Your task to perform on an android device: Go to location settings Image 0: 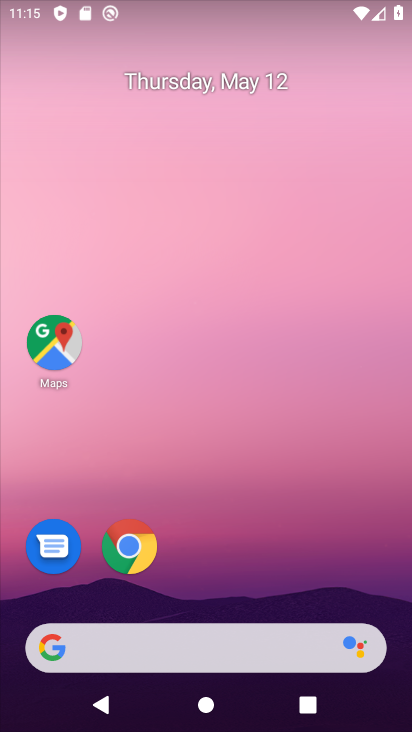
Step 0: drag from (244, 680) to (241, 143)
Your task to perform on an android device: Go to location settings Image 1: 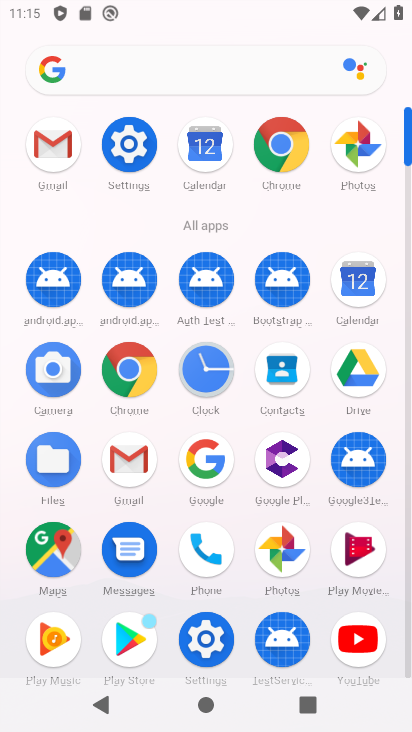
Step 1: click (123, 144)
Your task to perform on an android device: Go to location settings Image 2: 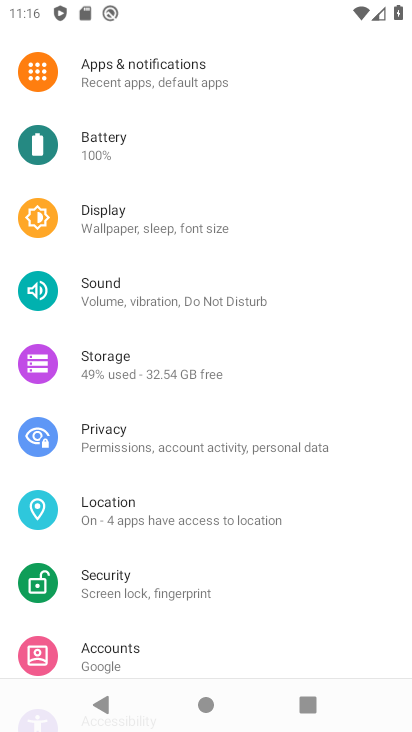
Step 2: click (118, 507)
Your task to perform on an android device: Go to location settings Image 3: 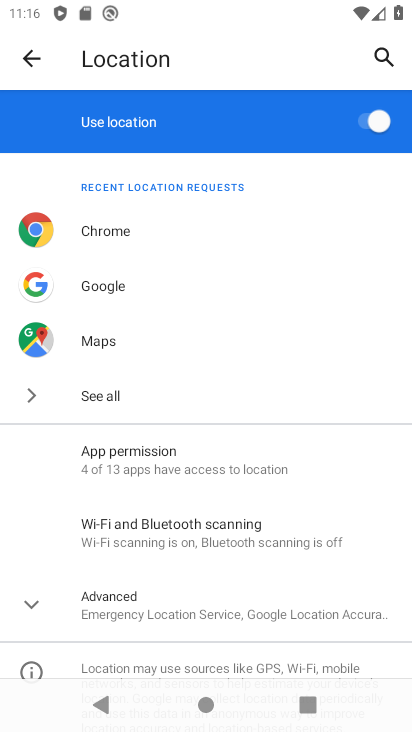
Step 3: task complete